Your task to perform on an android device: change text size in settings app Image 0: 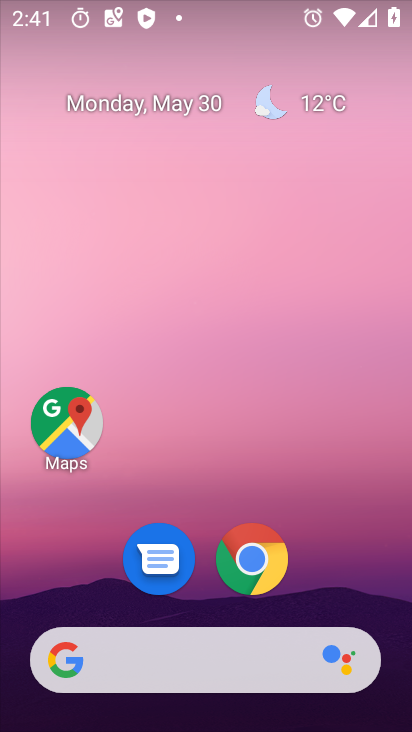
Step 0: drag from (205, 597) to (229, 169)
Your task to perform on an android device: change text size in settings app Image 1: 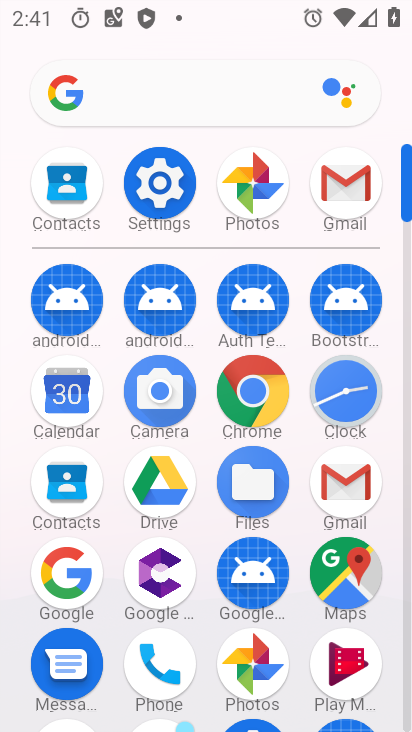
Step 1: click (172, 191)
Your task to perform on an android device: change text size in settings app Image 2: 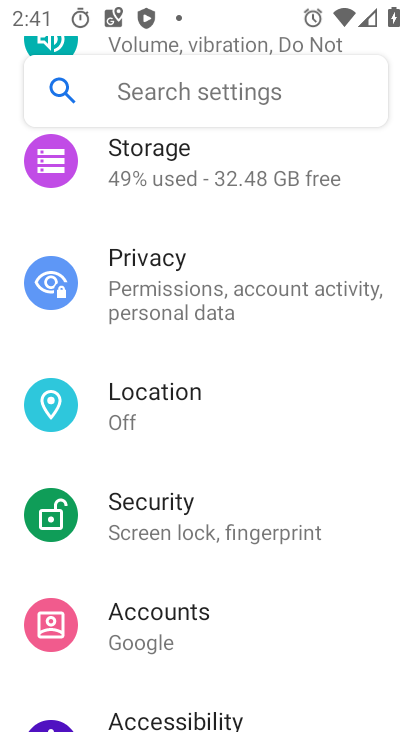
Step 2: click (192, 93)
Your task to perform on an android device: change text size in settings app Image 3: 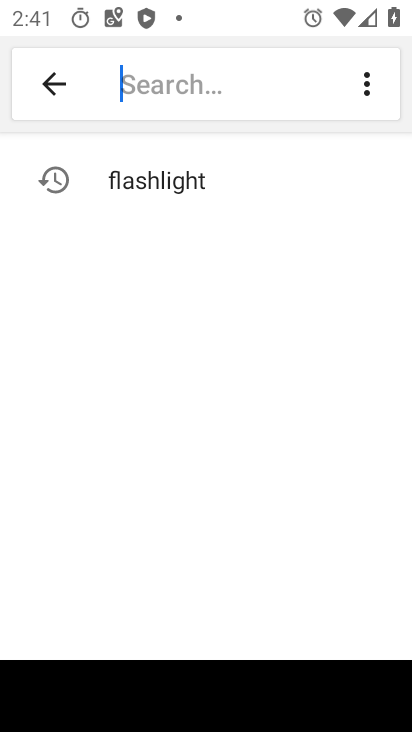
Step 3: type "text size"
Your task to perform on an android device: change text size in settings app Image 4: 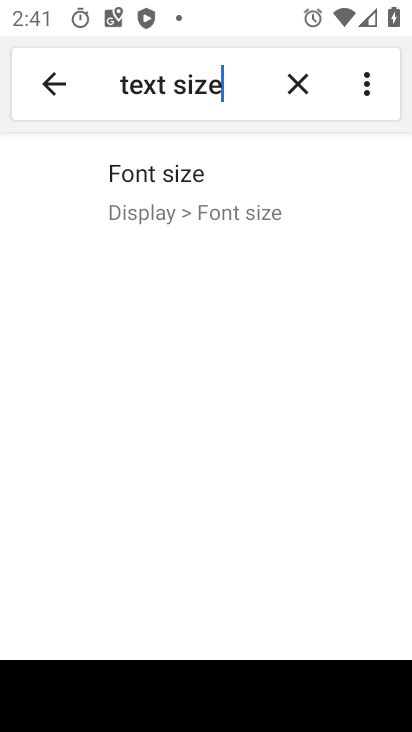
Step 4: click (165, 160)
Your task to perform on an android device: change text size in settings app Image 5: 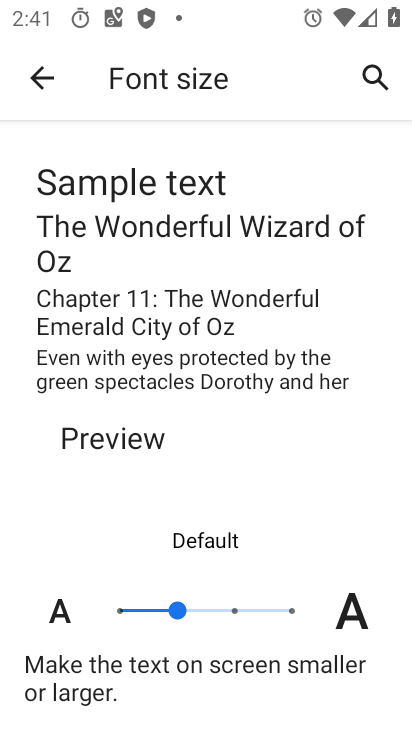
Step 5: task complete